Your task to perform on an android device: install app "Google Photos" Image 0: 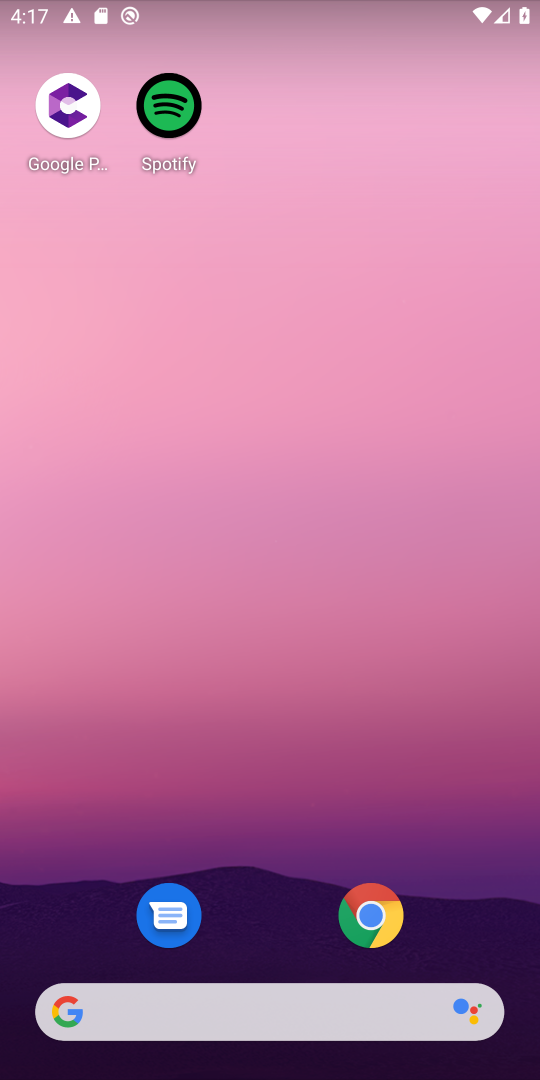
Step 0: drag from (268, 917) to (444, 187)
Your task to perform on an android device: install app "Google Photos" Image 1: 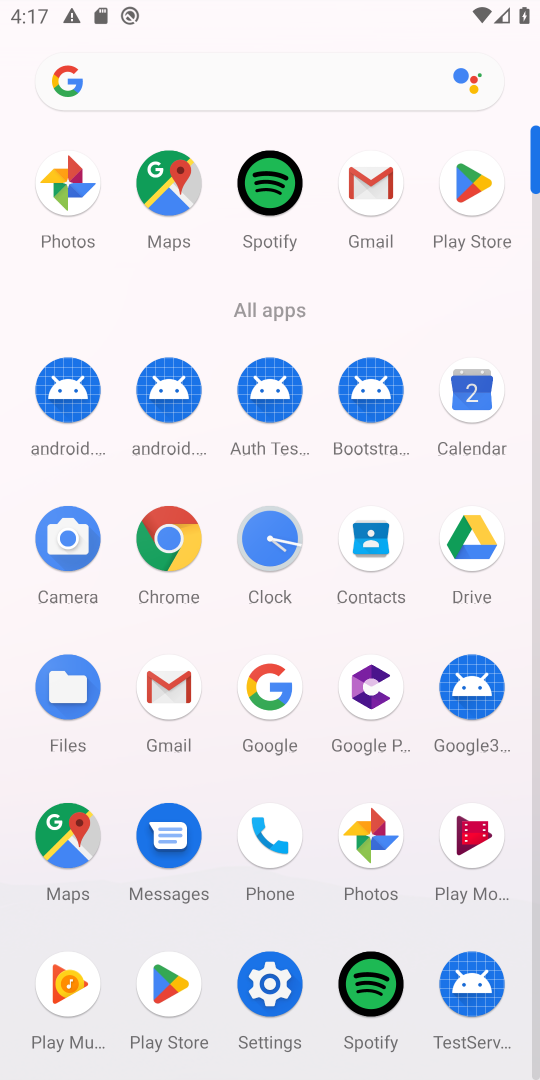
Step 1: click (459, 206)
Your task to perform on an android device: install app "Google Photos" Image 2: 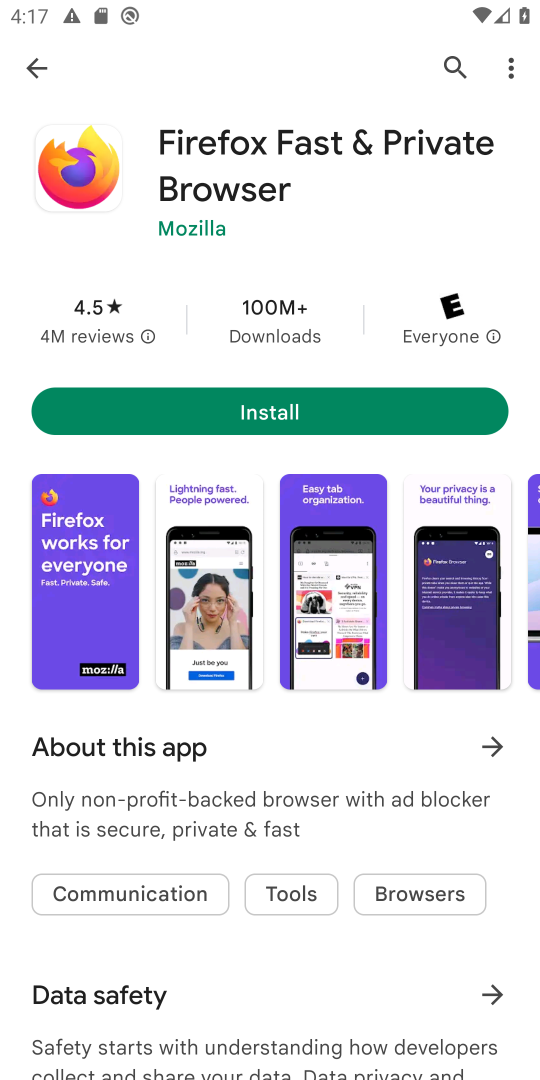
Step 2: click (449, 64)
Your task to perform on an android device: install app "Google Photos" Image 3: 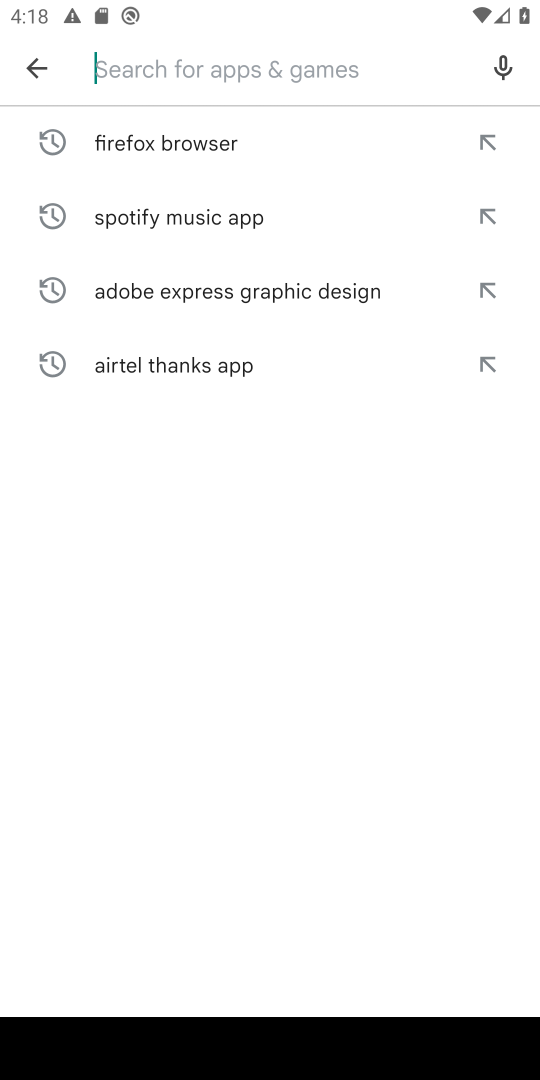
Step 3: type "google photos"
Your task to perform on an android device: install app "Google Photos" Image 4: 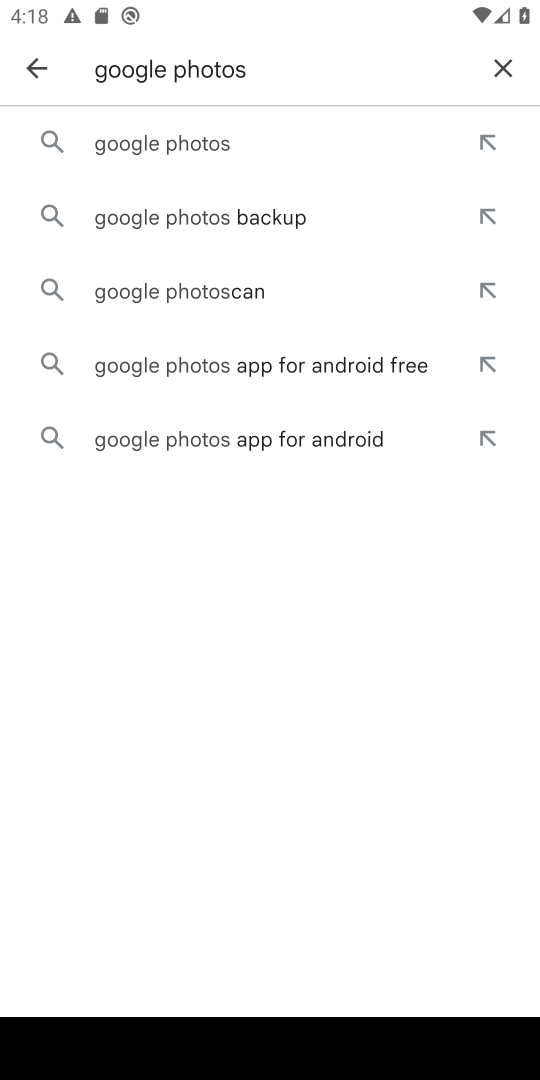
Step 4: click (272, 132)
Your task to perform on an android device: install app "Google Photos" Image 5: 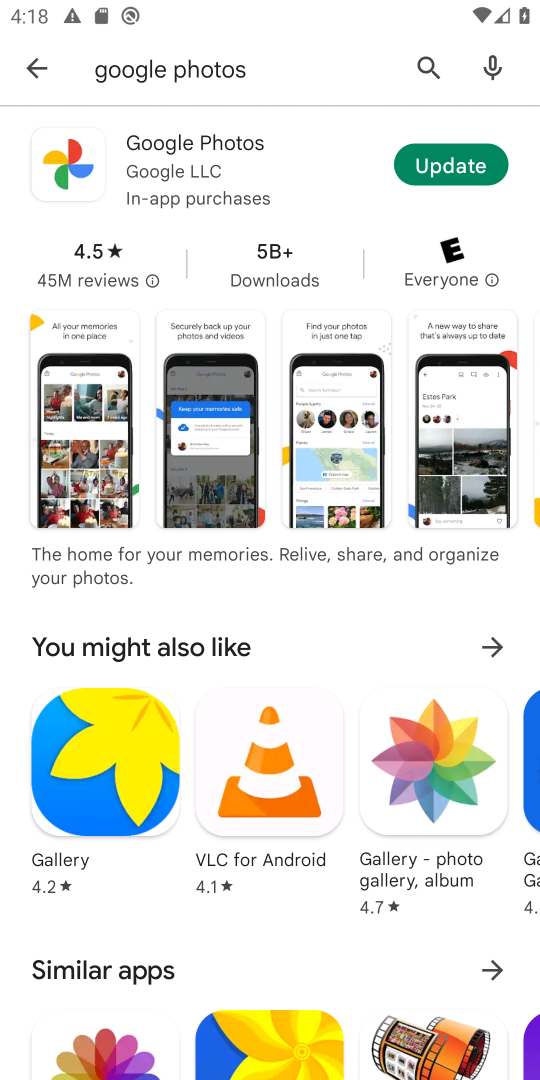
Step 5: click (242, 155)
Your task to perform on an android device: install app "Google Photos" Image 6: 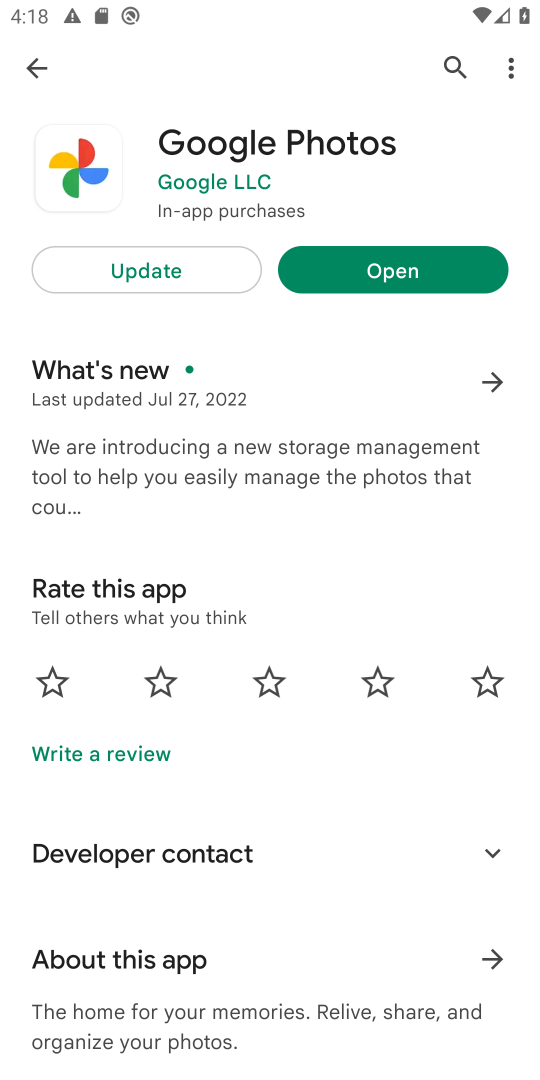
Step 6: task complete